Your task to perform on an android device: turn off notifications in google photos Image 0: 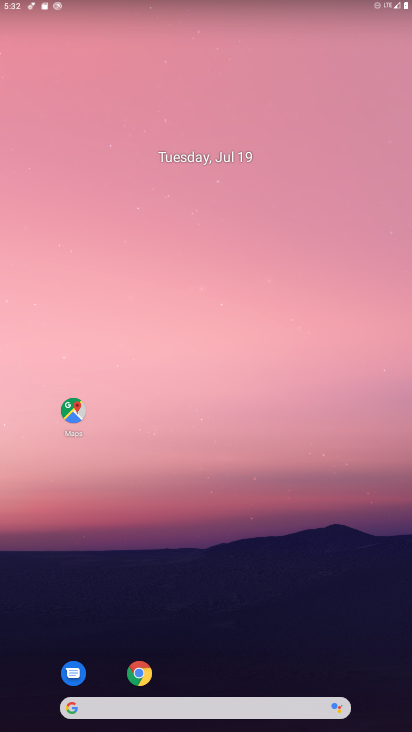
Step 0: drag from (212, 681) to (221, 6)
Your task to perform on an android device: turn off notifications in google photos Image 1: 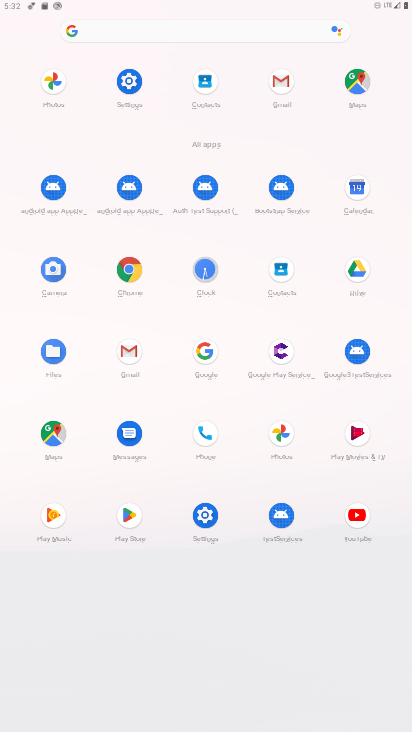
Step 1: click (280, 434)
Your task to perform on an android device: turn off notifications in google photos Image 2: 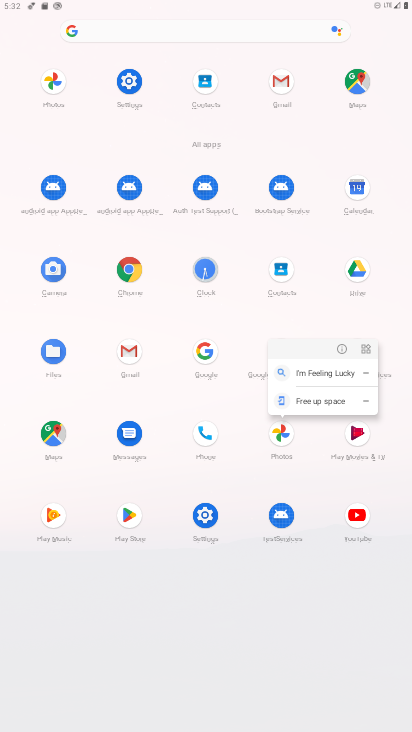
Step 2: click (280, 434)
Your task to perform on an android device: turn off notifications in google photos Image 3: 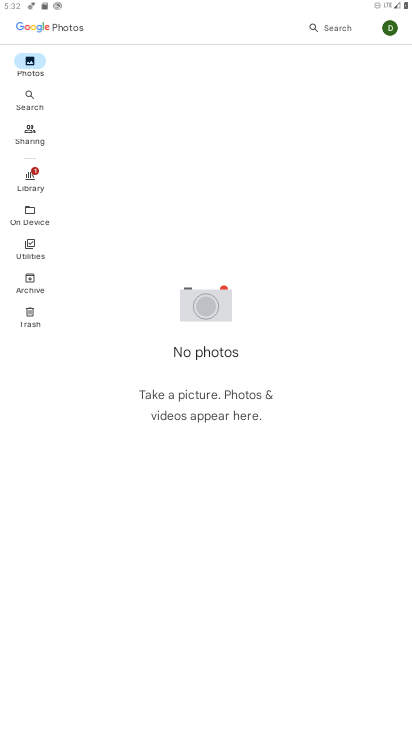
Step 3: click (393, 23)
Your task to perform on an android device: turn off notifications in google photos Image 4: 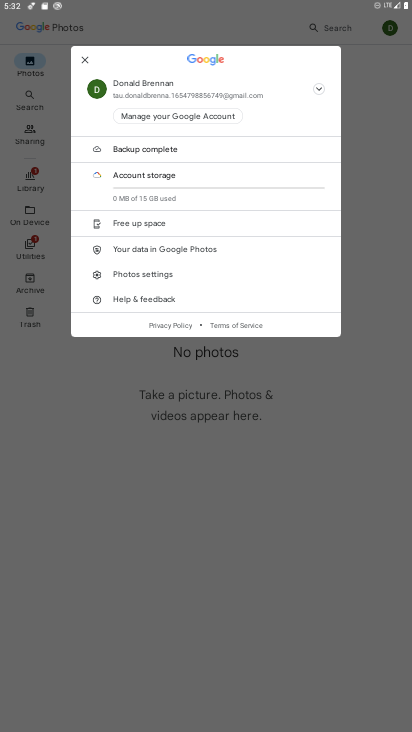
Step 4: click (178, 273)
Your task to perform on an android device: turn off notifications in google photos Image 5: 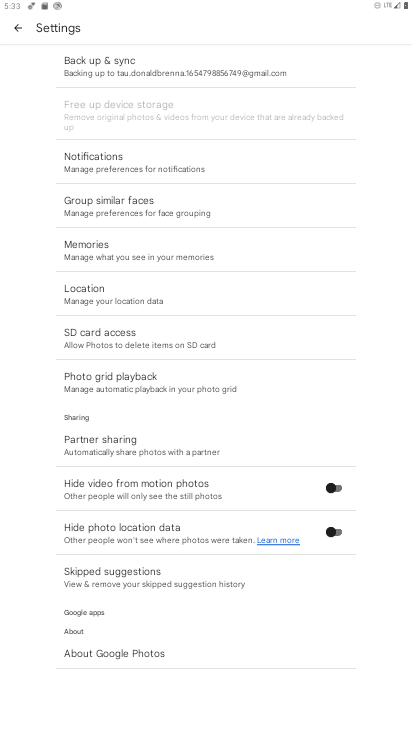
Step 5: click (124, 154)
Your task to perform on an android device: turn off notifications in google photos Image 6: 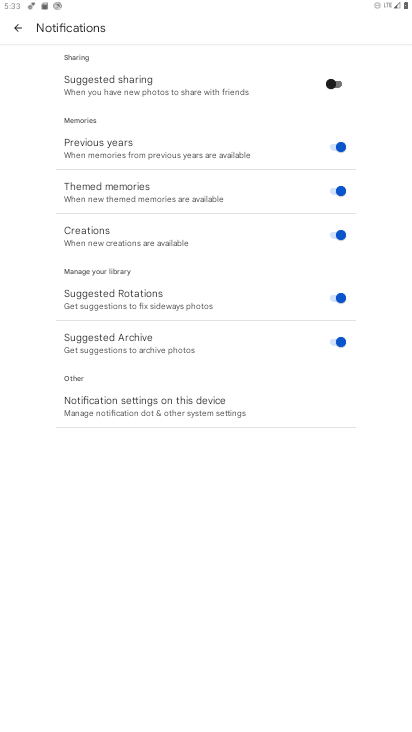
Step 6: click (101, 388)
Your task to perform on an android device: turn off notifications in google photos Image 7: 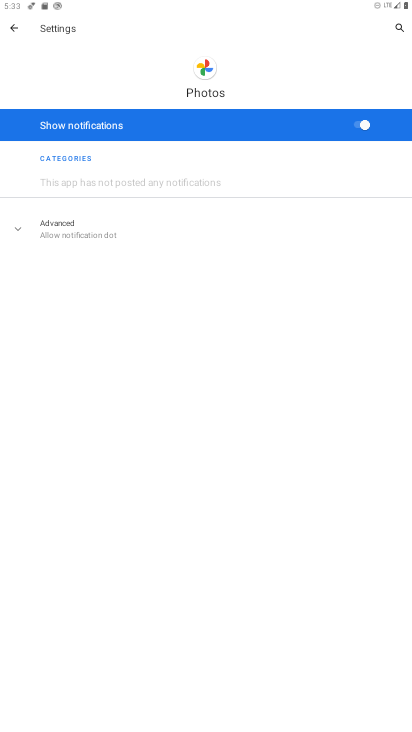
Step 7: click (362, 119)
Your task to perform on an android device: turn off notifications in google photos Image 8: 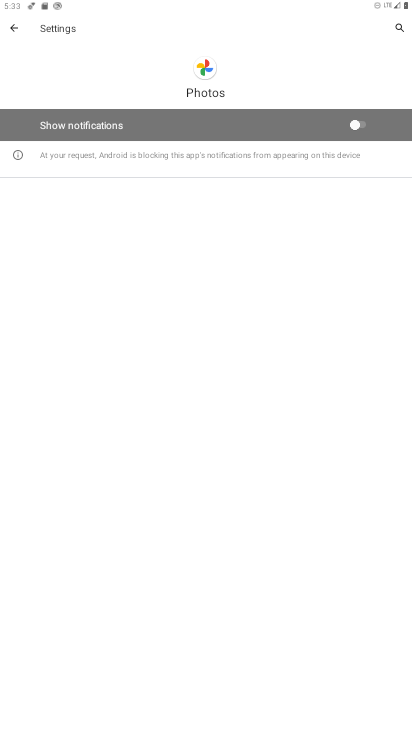
Step 8: task complete